Your task to perform on an android device: Open wifi settings Image 0: 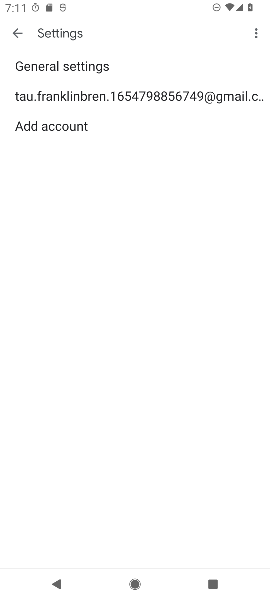
Step 0: press home button
Your task to perform on an android device: Open wifi settings Image 1: 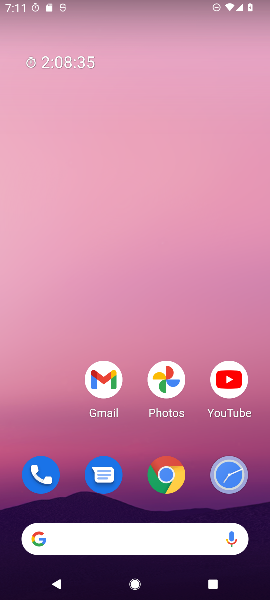
Step 1: drag from (68, 439) to (75, 156)
Your task to perform on an android device: Open wifi settings Image 2: 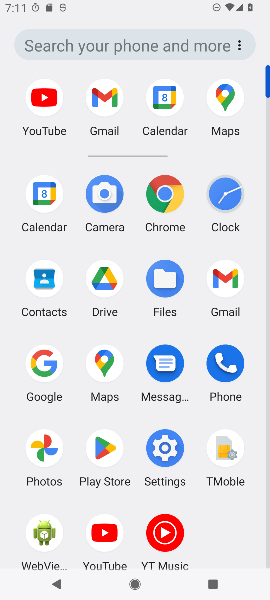
Step 2: click (167, 444)
Your task to perform on an android device: Open wifi settings Image 3: 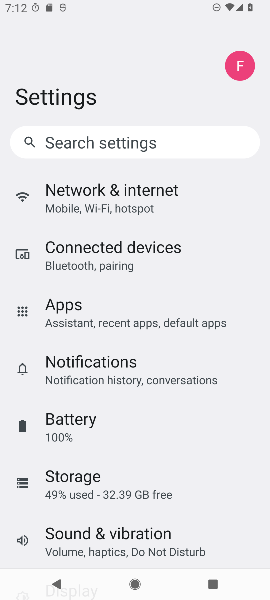
Step 3: drag from (231, 462) to (227, 342)
Your task to perform on an android device: Open wifi settings Image 4: 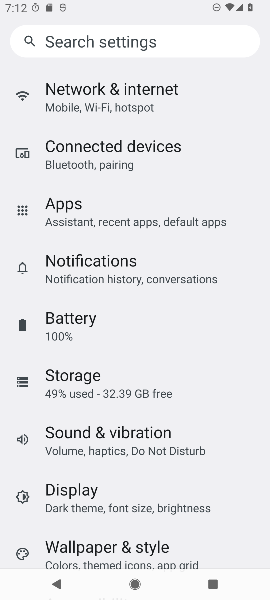
Step 4: drag from (229, 450) to (233, 339)
Your task to perform on an android device: Open wifi settings Image 5: 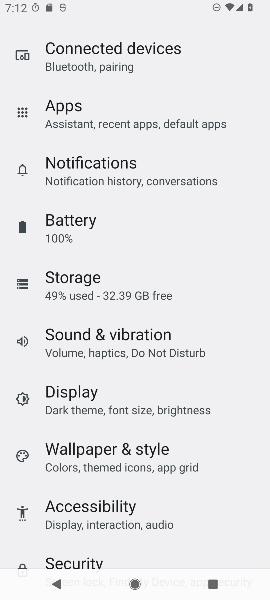
Step 5: drag from (233, 477) to (247, 333)
Your task to perform on an android device: Open wifi settings Image 6: 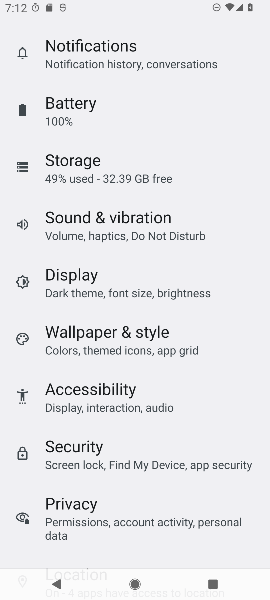
Step 6: drag from (217, 393) to (230, 294)
Your task to perform on an android device: Open wifi settings Image 7: 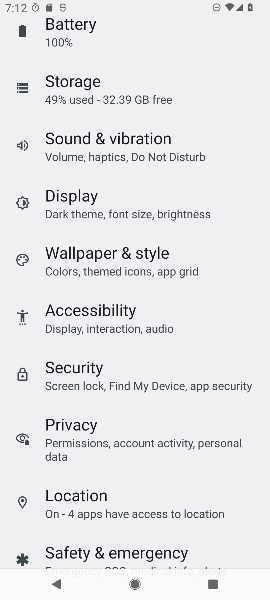
Step 7: drag from (227, 145) to (227, 356)
Your task to perform on an android device: Open wifi settings Image 8: 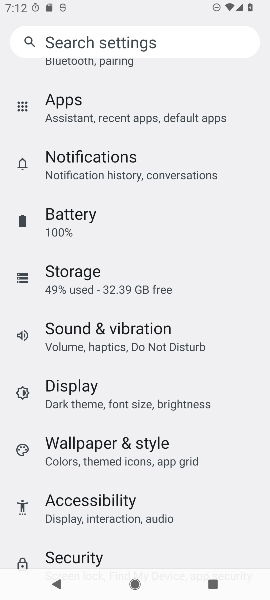
Step 8: drag from (242, 152) to (263, 351)
Your task to perform on an android device: Open wifi settings Image 9: 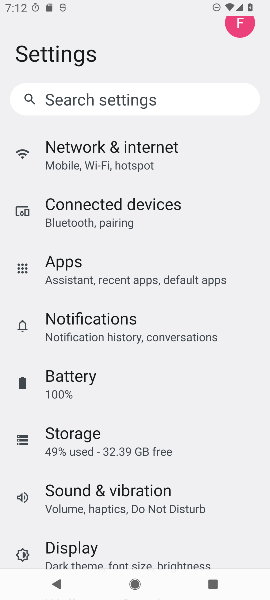
Step 9: click (141, 149)
Your task to perform on an android device: Open wifi settings Image 10: 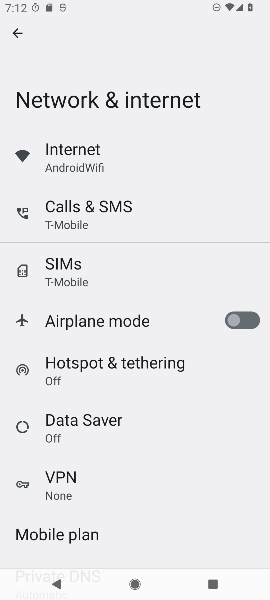
Step 10: click (100, 151)
Your task to perform on an android device: Open wifi settings Image 11: 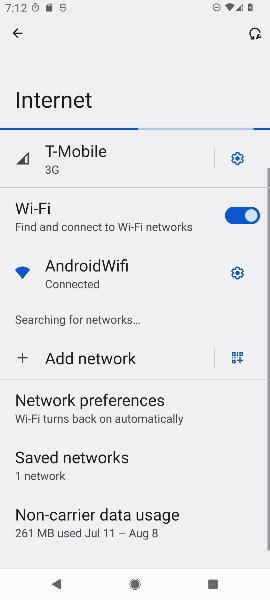
Step 11: task complete